Your task to perform on an android device: turn on sleep mode Image 0: 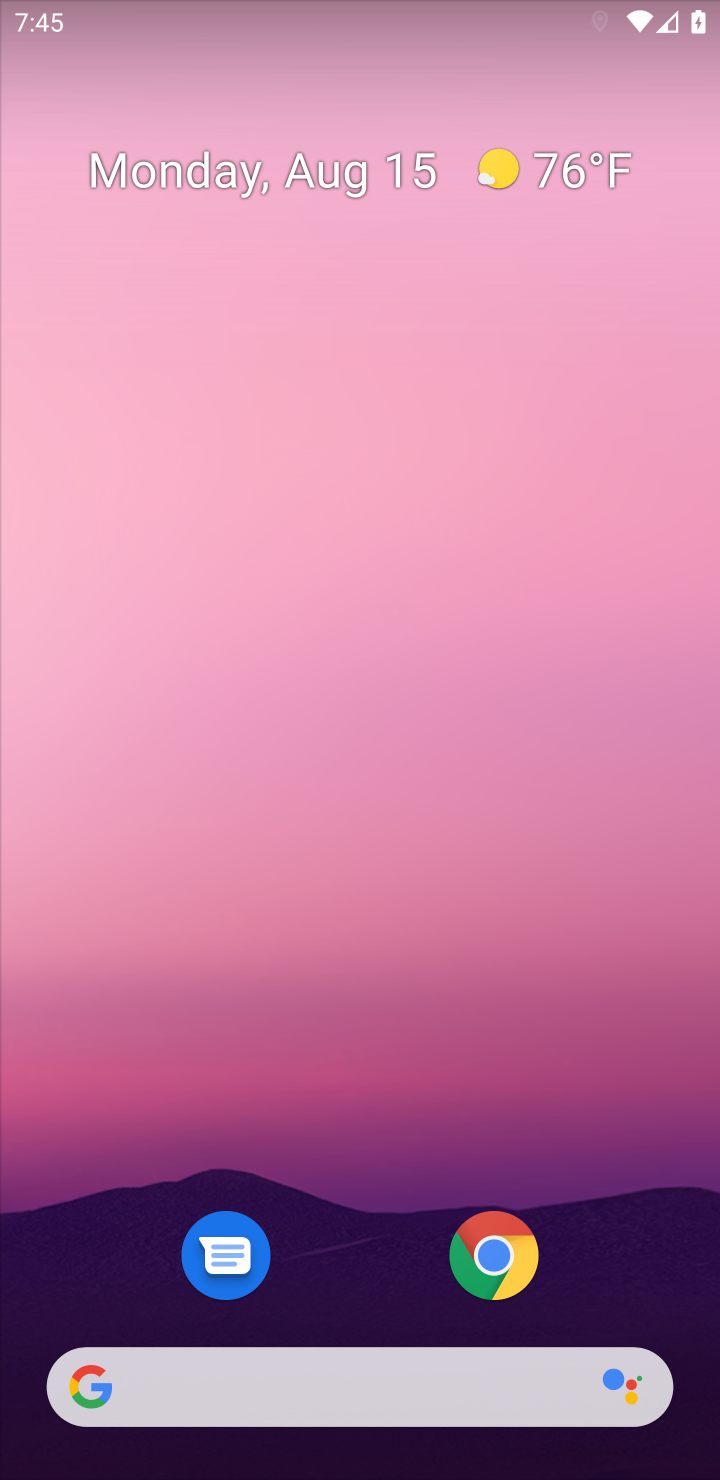
Step 0: press home button
Your task to perform on an android device: turn on sleep mode Image 1: 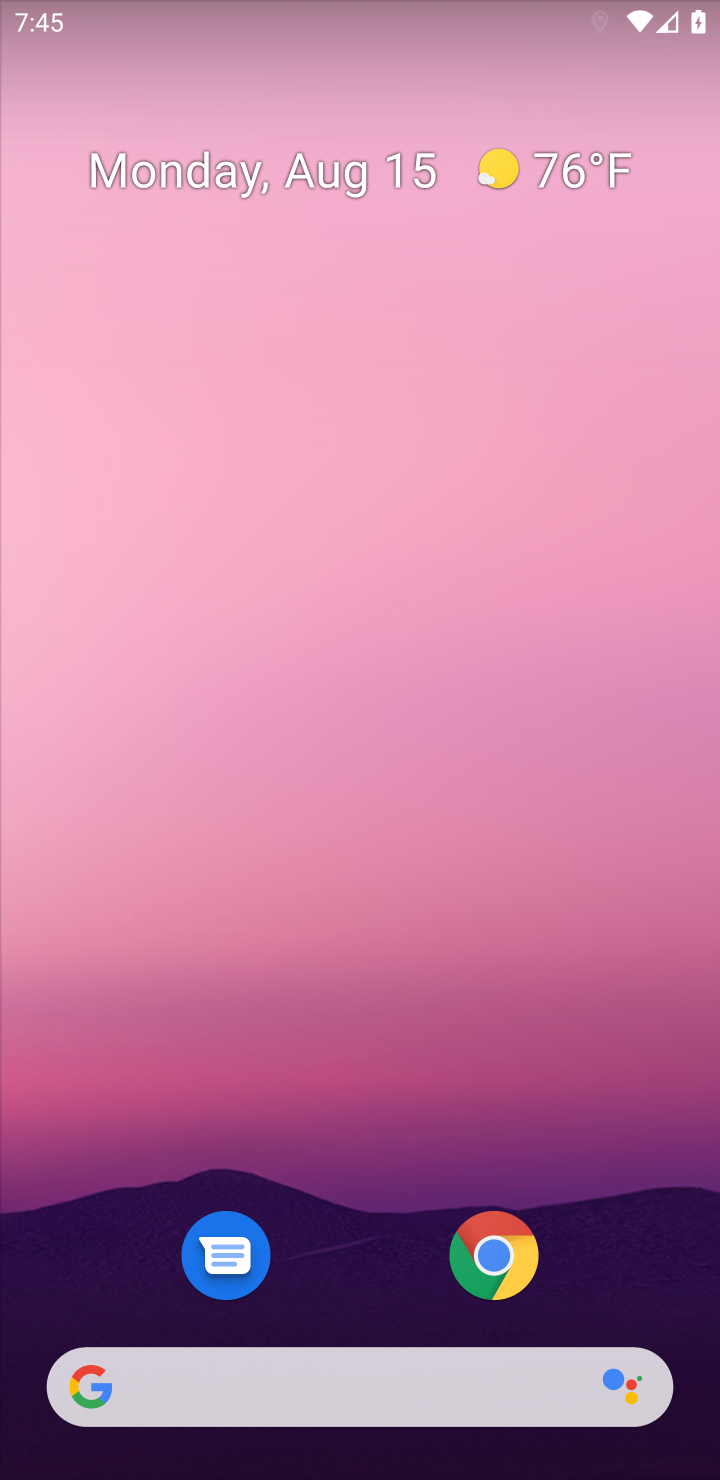
Step 1: drag from (376, 1306) to (358, 131)
Your task to perform on an android device: turn on sleep mode Image 2: 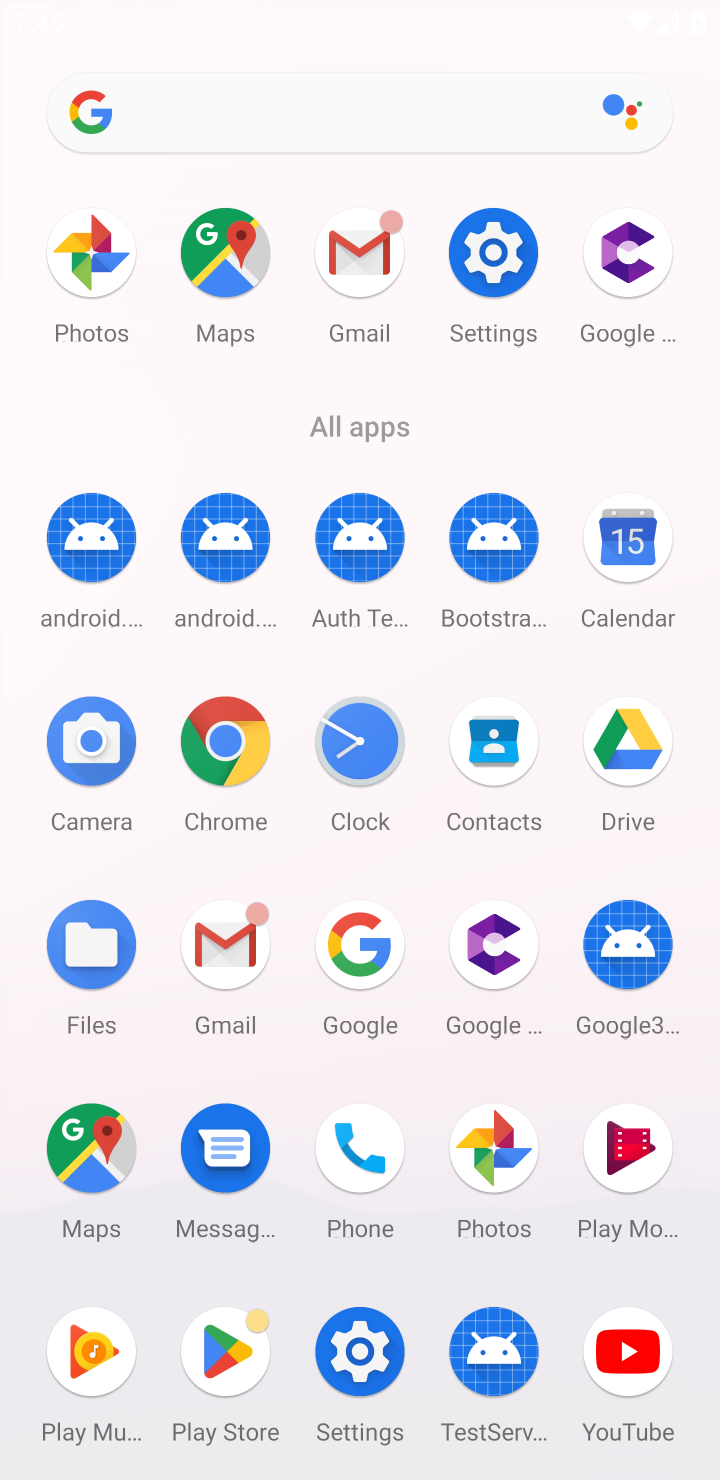
Step 2: click (489, 237)
Your task to perform on an android device: turn on sleep mode Image 3: 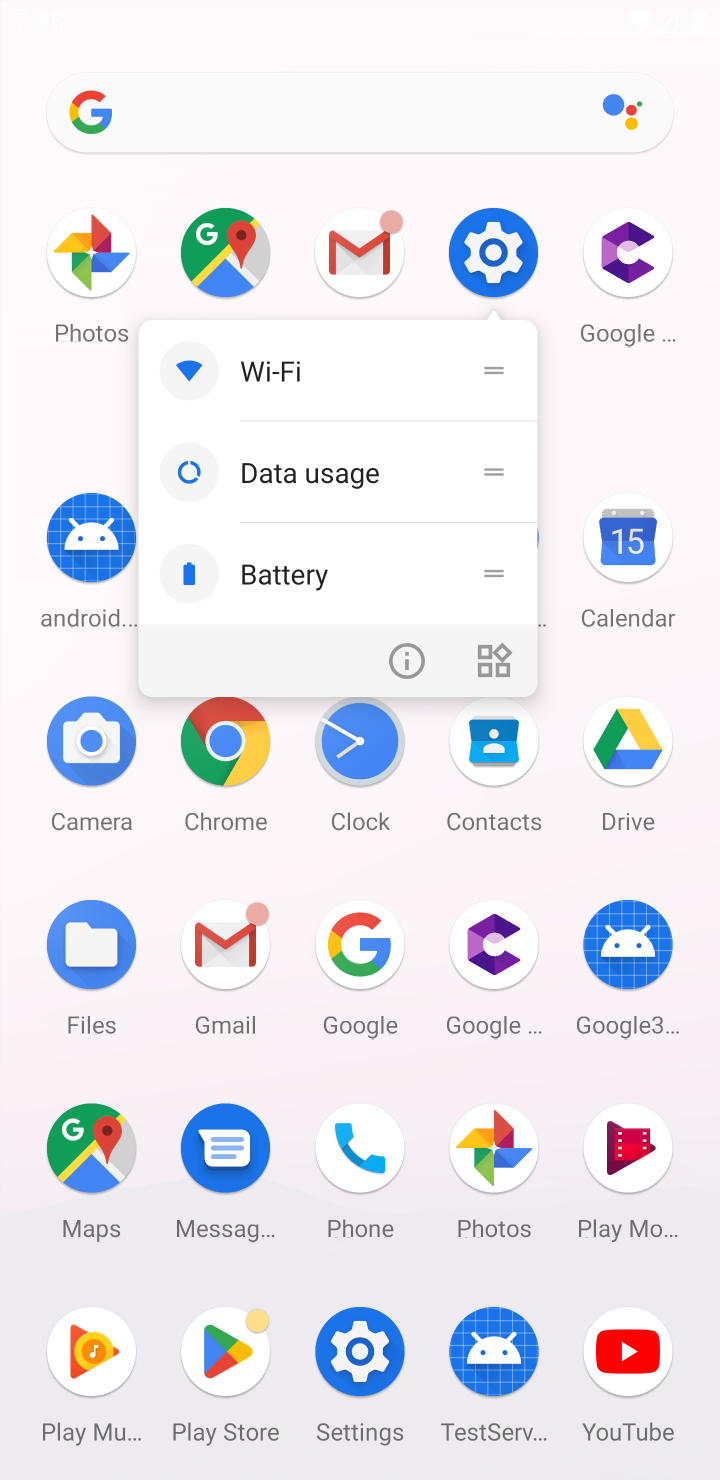
Step 3: click (489, 249)
Your task to perform on an android device: turn on sleep mode Image 4: 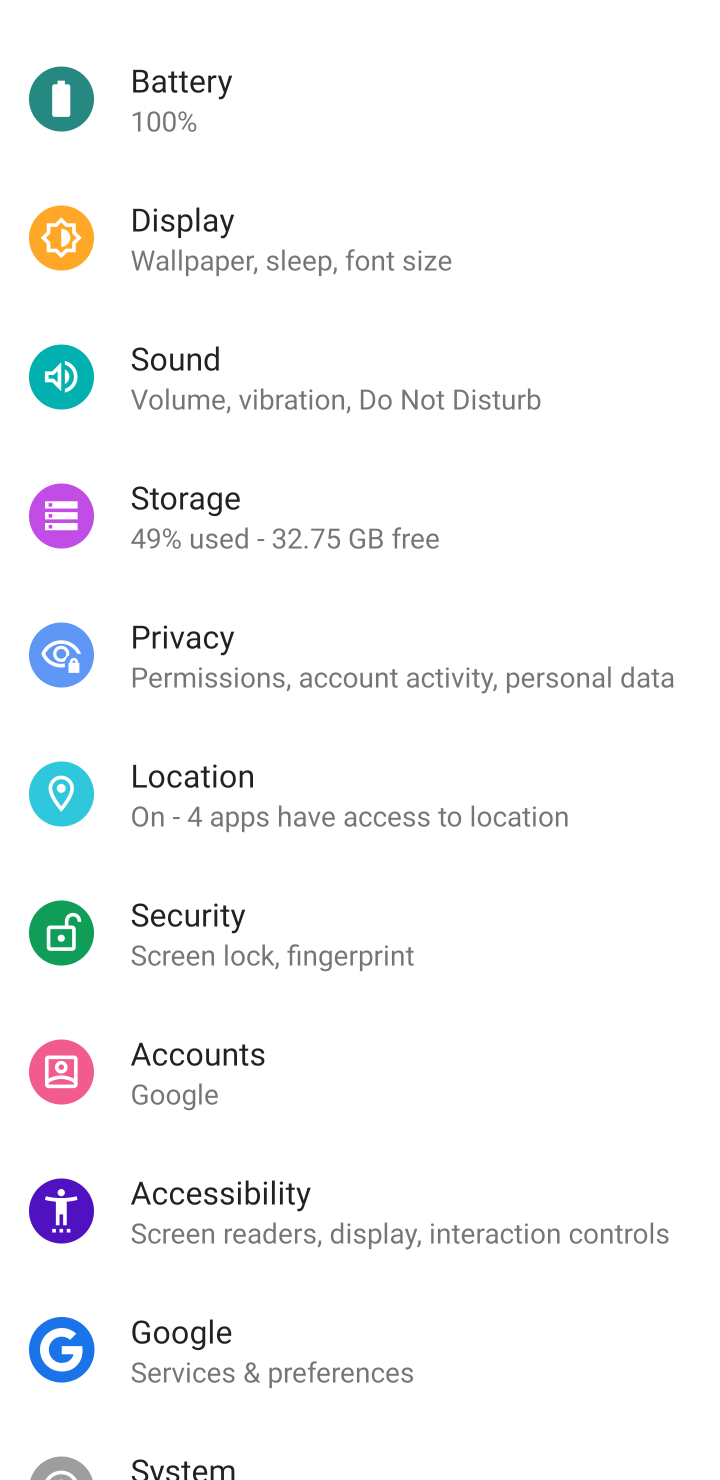
Step 4: click (484, 251)
Your task to perform on an android device: turn on sleep mode Image 5: 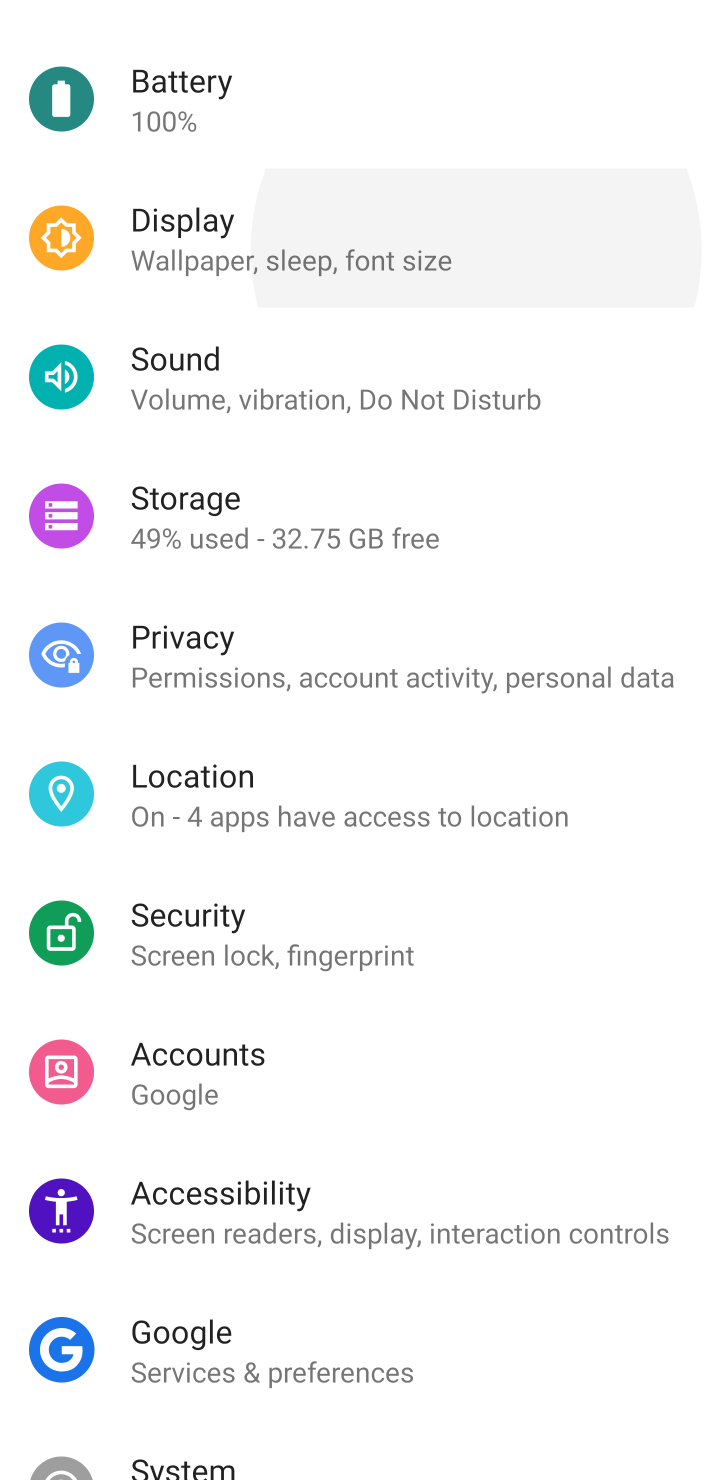
Step 5: click (245, 233)
Your task to perform on an android device: turn on sleep mode Image 6: 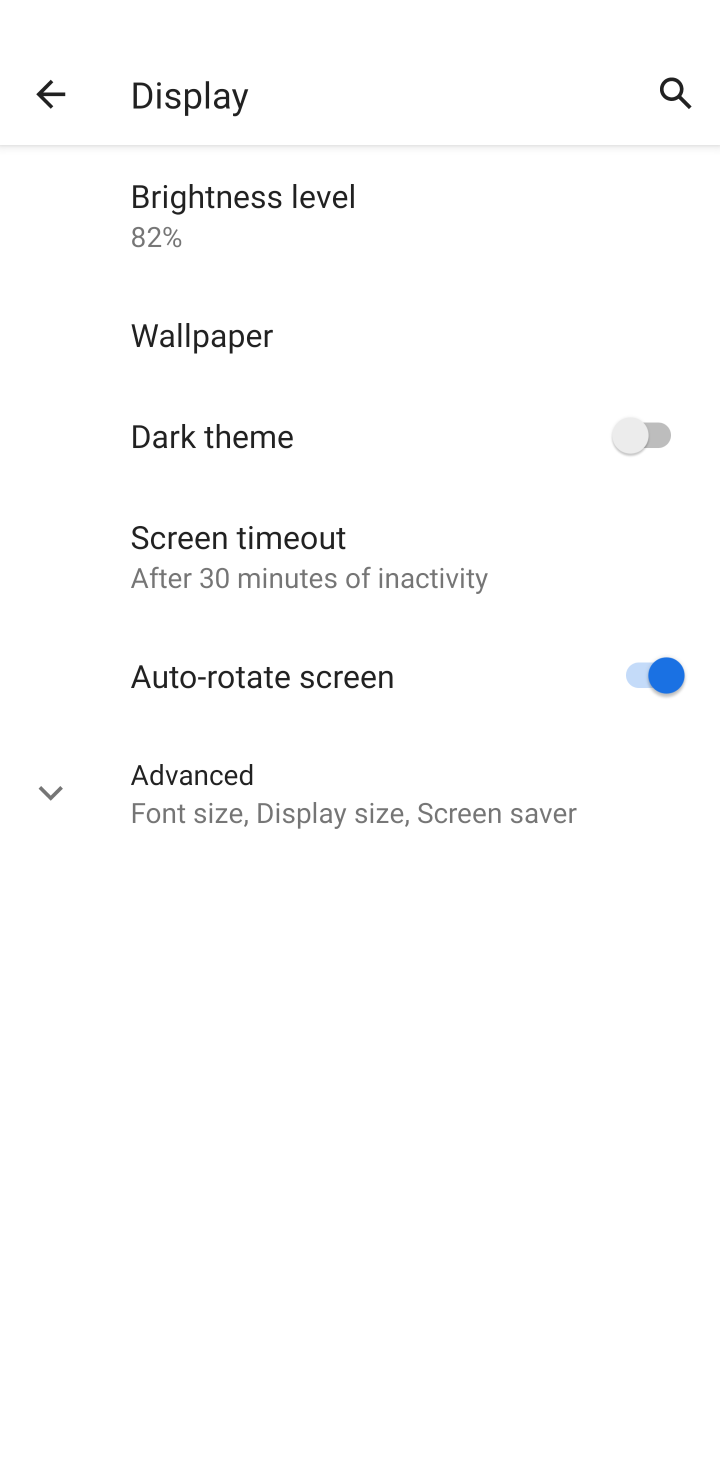
Step 6: click (68, 781)
Your task to perform on an android device: turn on sleep mode Image 7: 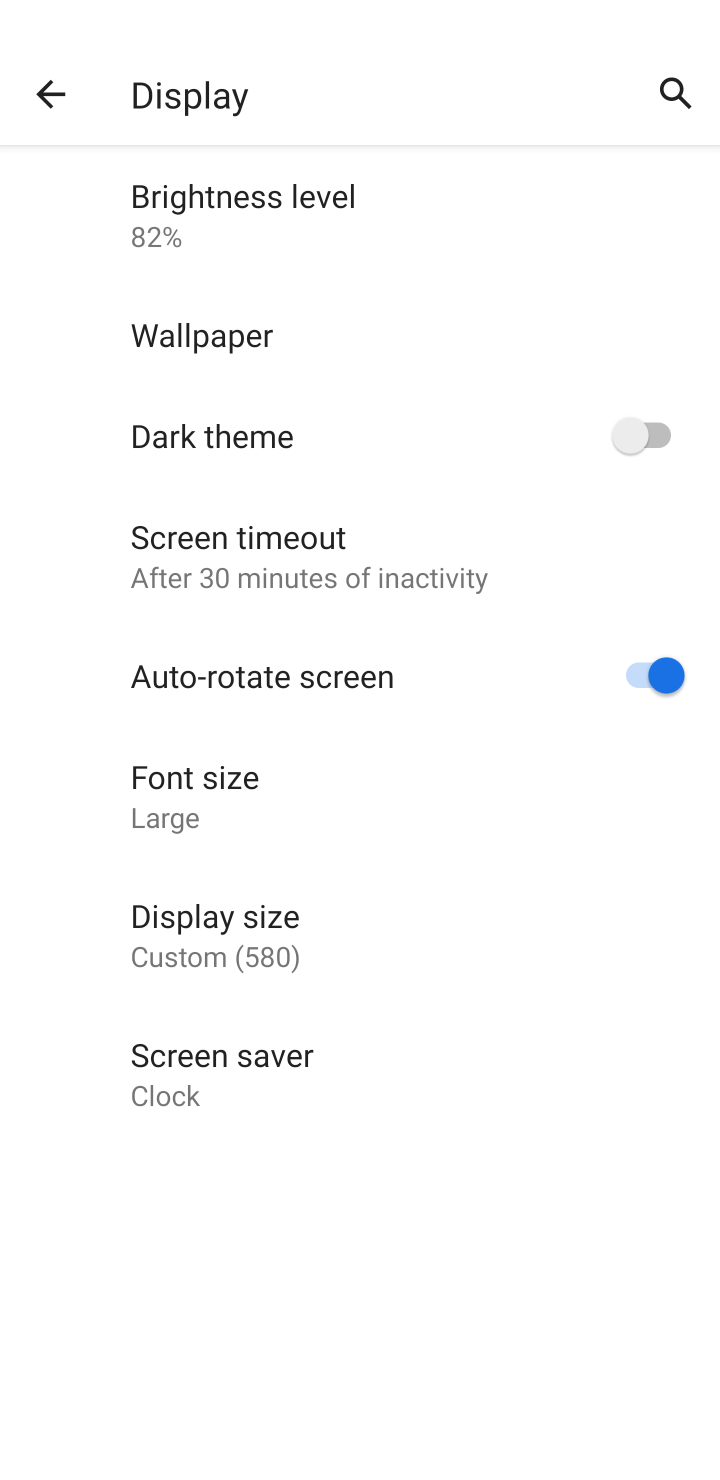
Step 7: task complete